Your task to perform on an android device: search for starred emails in the gmail app Image 0: 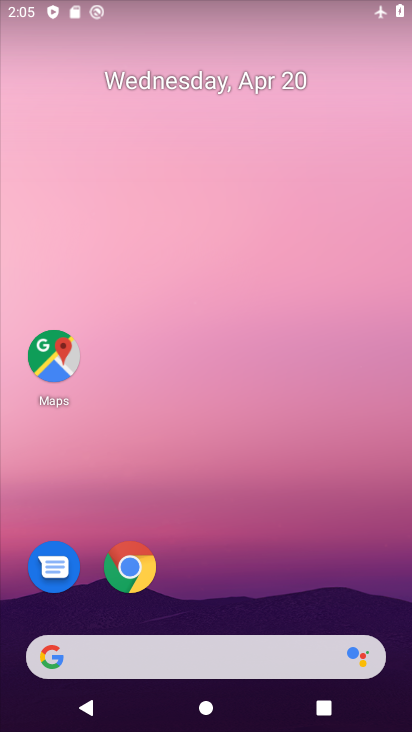
Step 0: drag from (194, 653) to (192, 131)
Your task to perform on an android device: search for starred emails in the gmail app Image 1: 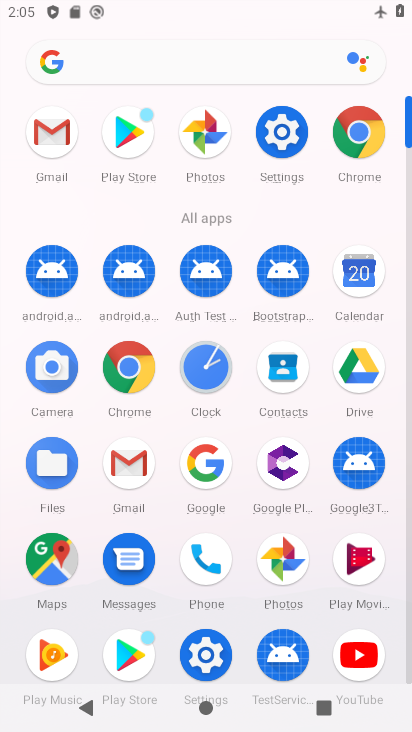
Step 1: click (65, 124)
Your task to perform on an android device: search for starred emails in the gmail app Image 2: 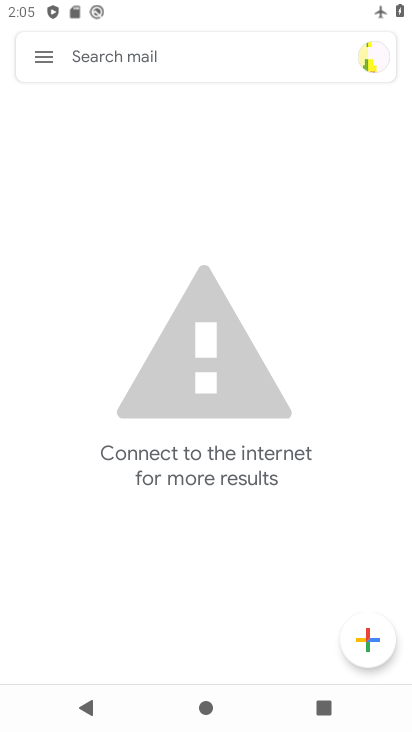
Step 2: click (49, 57)
Your task to perform on an android device: search for starred emails in the gmail app Image 3: 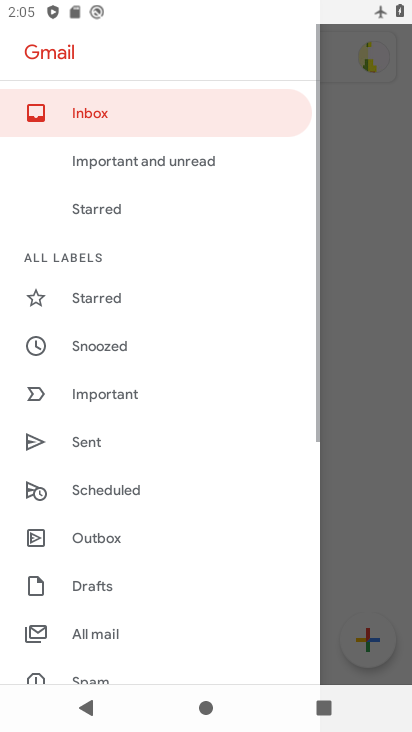
Step 3: click (147, 220)
Your task to perform on an android device: search for starred emails in the gmail app Image 4: 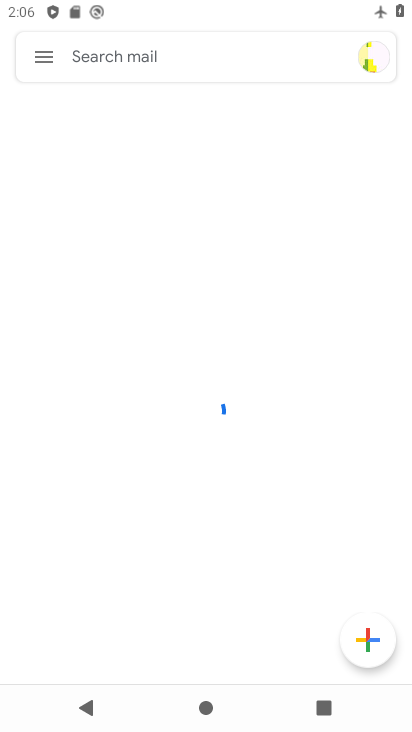
Step 4: task complete